Your task to perform on an android device: toggle airplane mode Image 0: 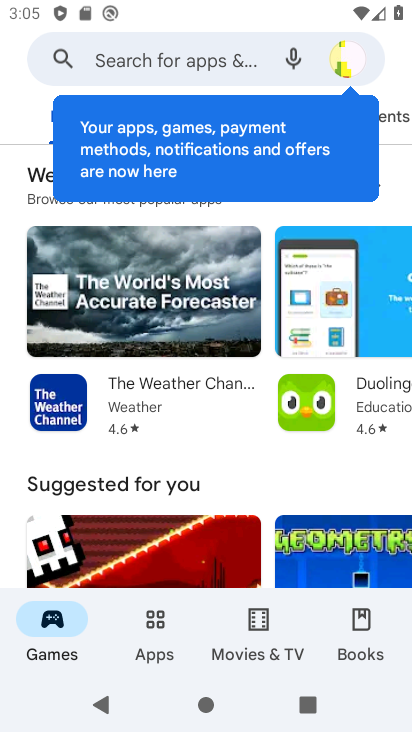
Step 0: press home button
Your task to perform on an android device: toggle airplane mode Image 1: 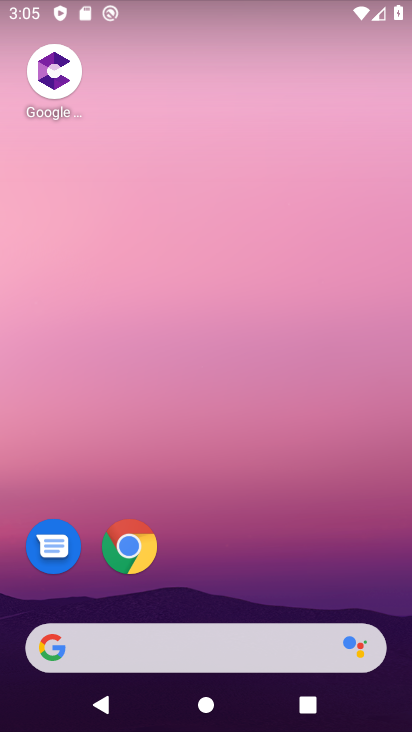
Step 1: drag from (246, 564) to (251, 78)
Your task to perform on an android device: toggle airplane mode Image 2: 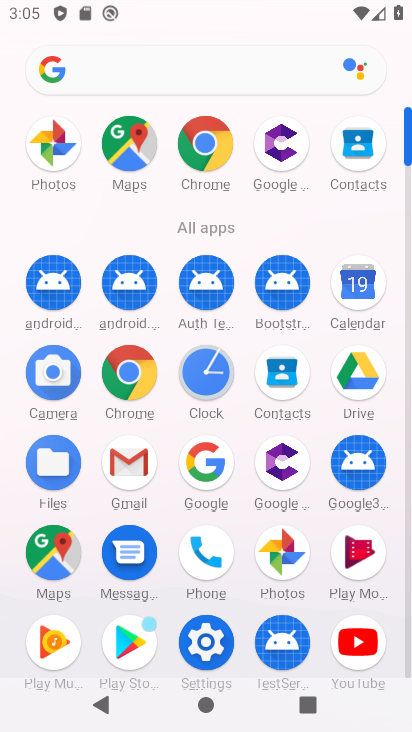
Step 2: drag from (295, 5) to (318, 492)
Your task to perform on an android device: toggle airplane mode Image 3: 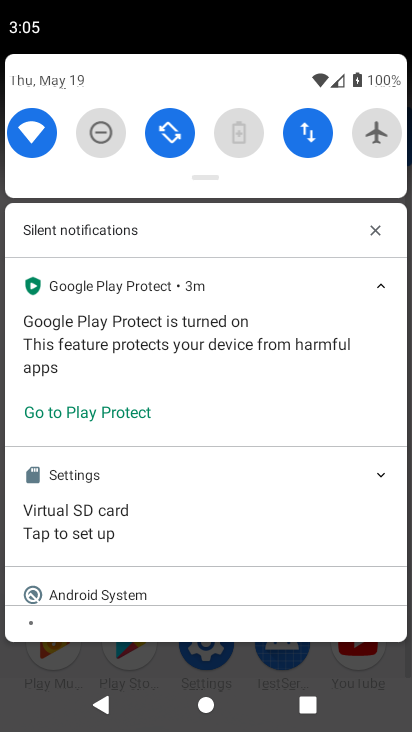
Step 3: drag from (208, 146) to (273, 623)
Your task to perform on an android device: toggle airplane mode Image 4: 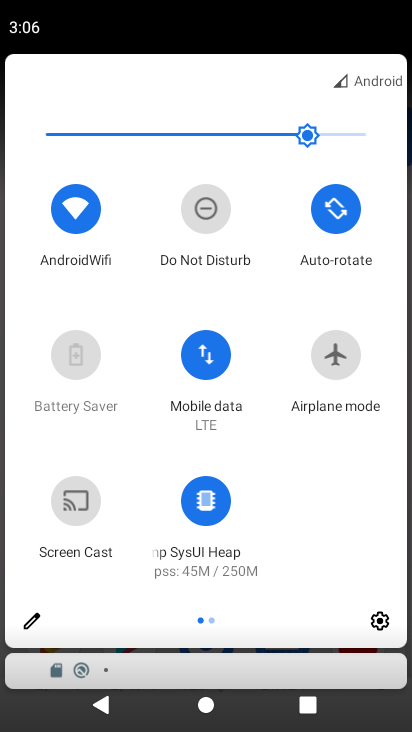
Step 4: drag from (273, 617) to (232, 259)
Your task to perform on an android device: toggle airplane mode Image 5: 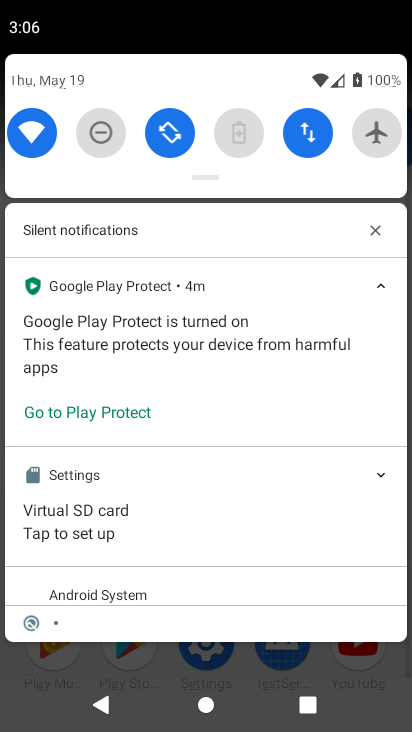
Step 5: click (395, 143)
Your task to perform on an android device: toggle airplane mode Image 6: 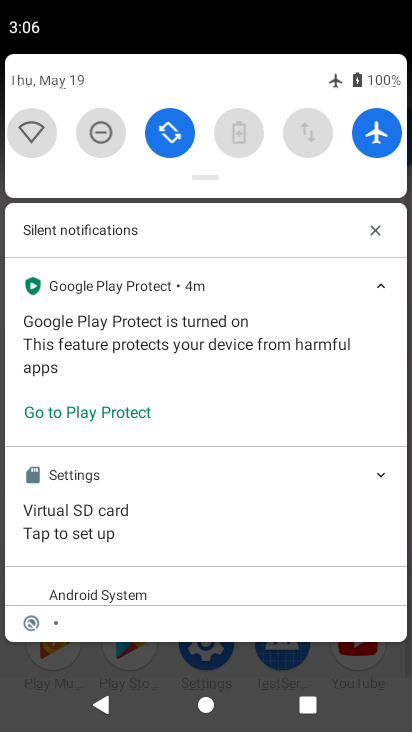
Step 6: task complete